Your task to perform on an android device: refresh tabs in the chrome app Image 0: 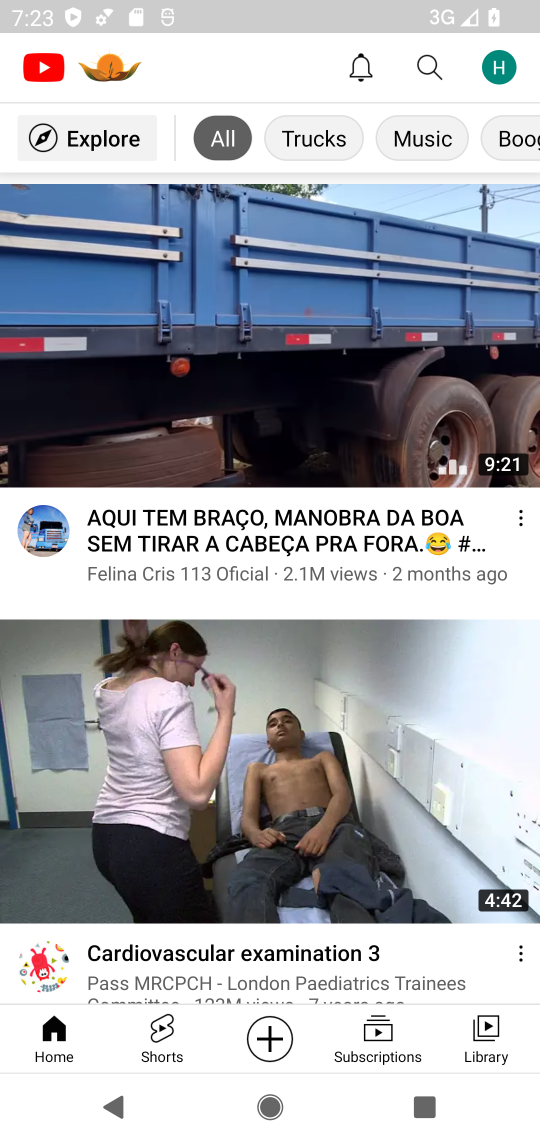
Step 0: press home button
Your task to perform on an android device: refresh tabs in the chrome app Image 1: 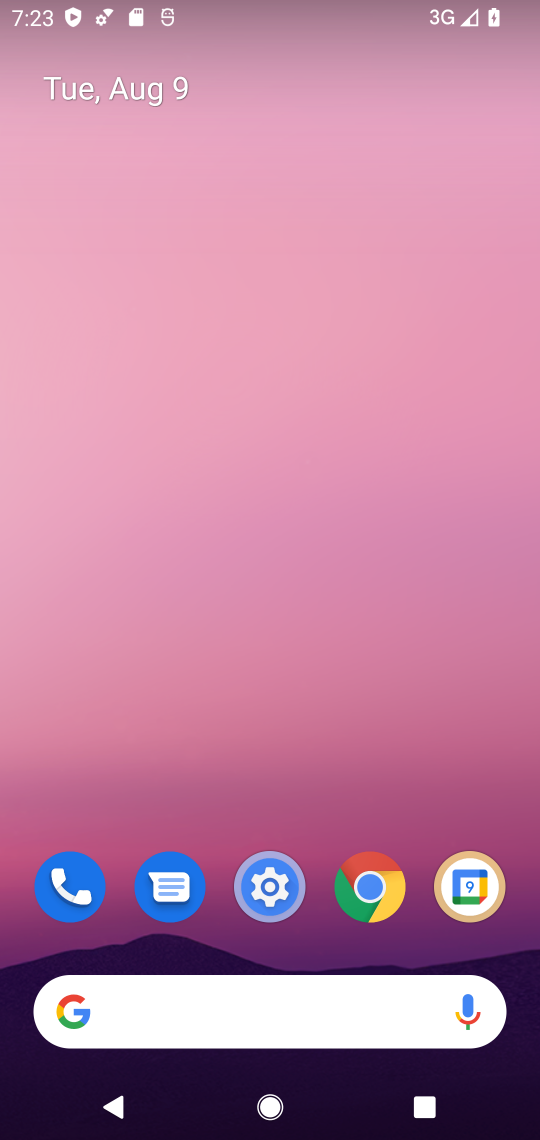
Step 1: click (367, 887)
Your task to perform on an android device: refresh tabs in the chrome app Image 2: 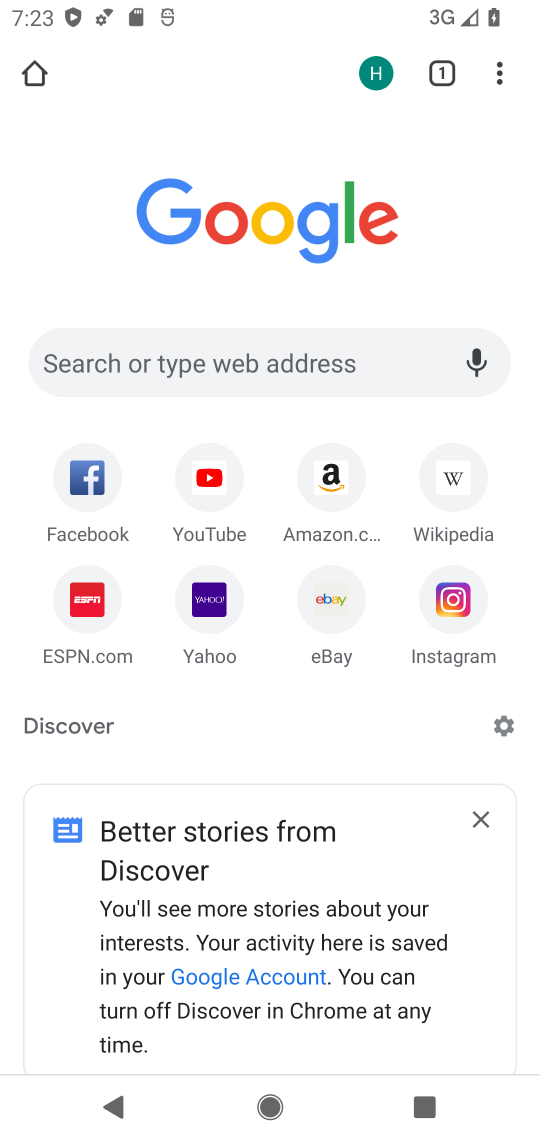
Step 2: click (502, 77)
Your task to perform on an android device: refresh tabs in the chrome app Image 3: 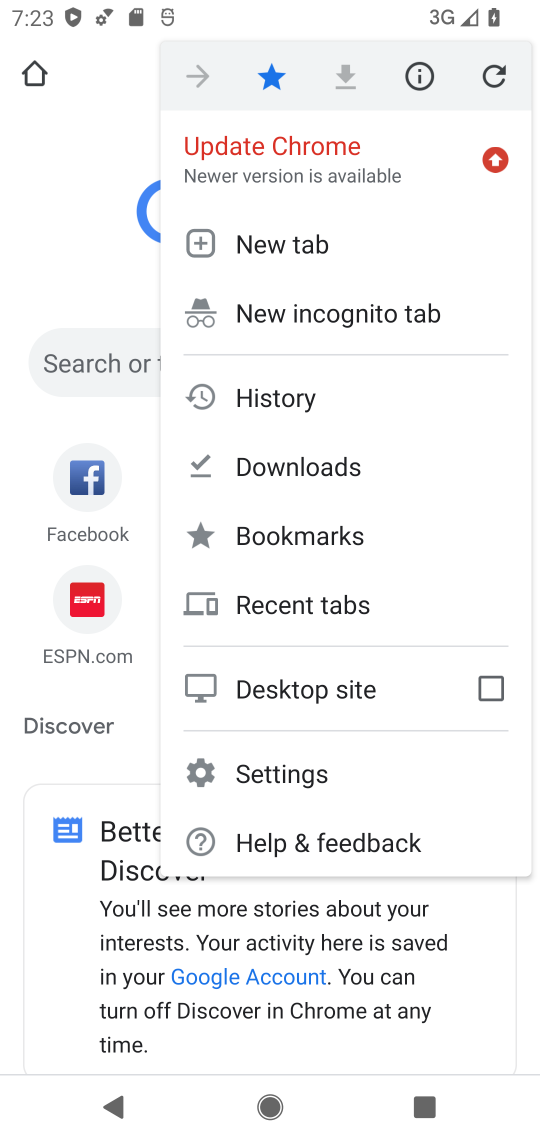
Step 3: click (485, 69)
Your task to perform on an android device: refresh tabs in the chrome app Image 4: 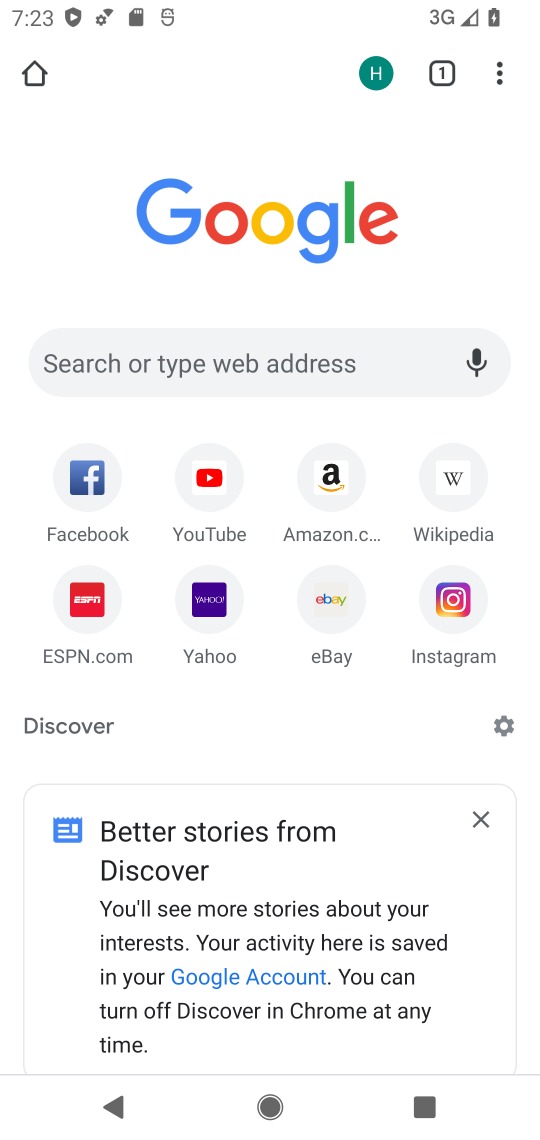
Step 4: task complete